Your task to perform on an android device: View the shopping cart on ebay.com. Search for "macbook air" on ebay.com, select the first entry, add it to the cart, then select checkout. Image 0: 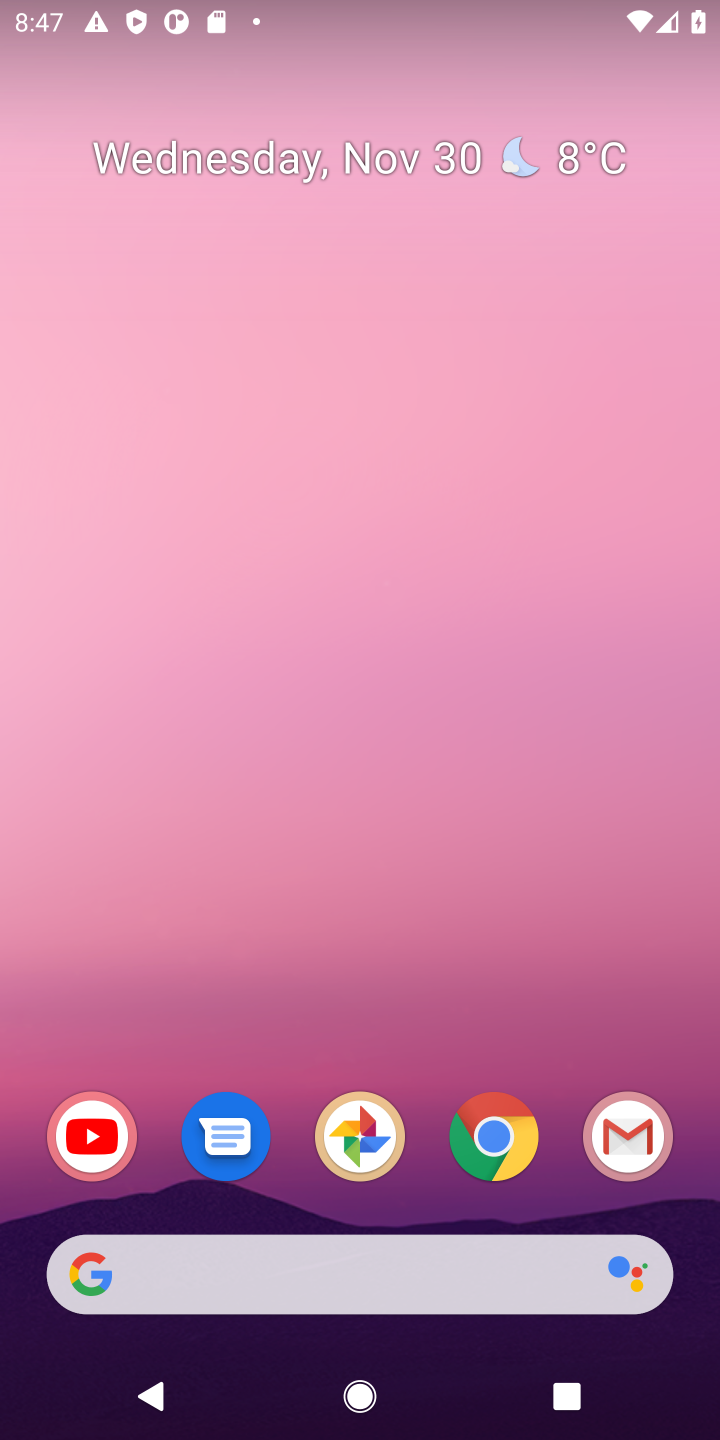
Step 0: click (493, 1075)
Your task to perform on an android device: View the shopping cart on ebay.com. Search for "macbook air" on ebay.com, select the first entry, add it to the cart, then select checkout. Image 1: 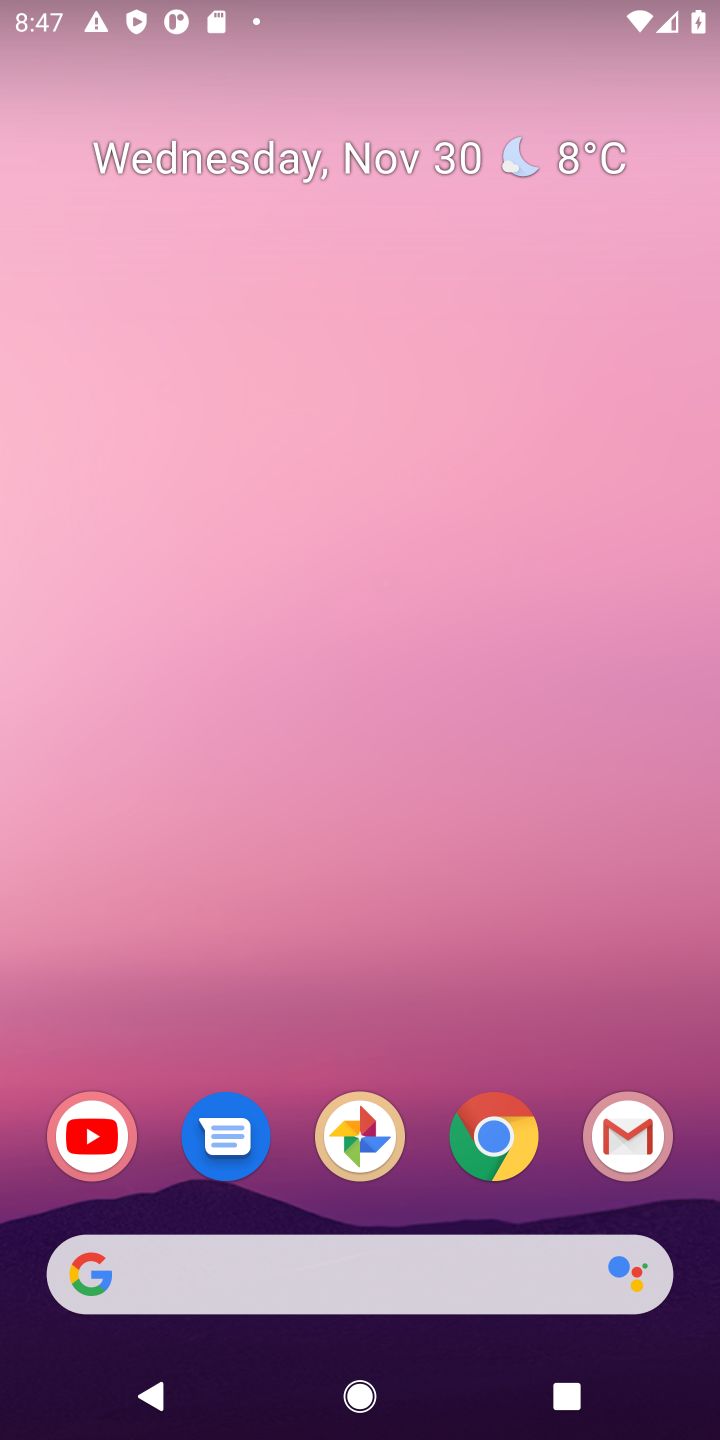
Step 1: click (503, 1130)
Your task to perform on an android device: View the shopping cart on ebay.com. Search for "macbook air" on ebay.com, select the first entry, add it to the cart, then select checkout. Image 2: 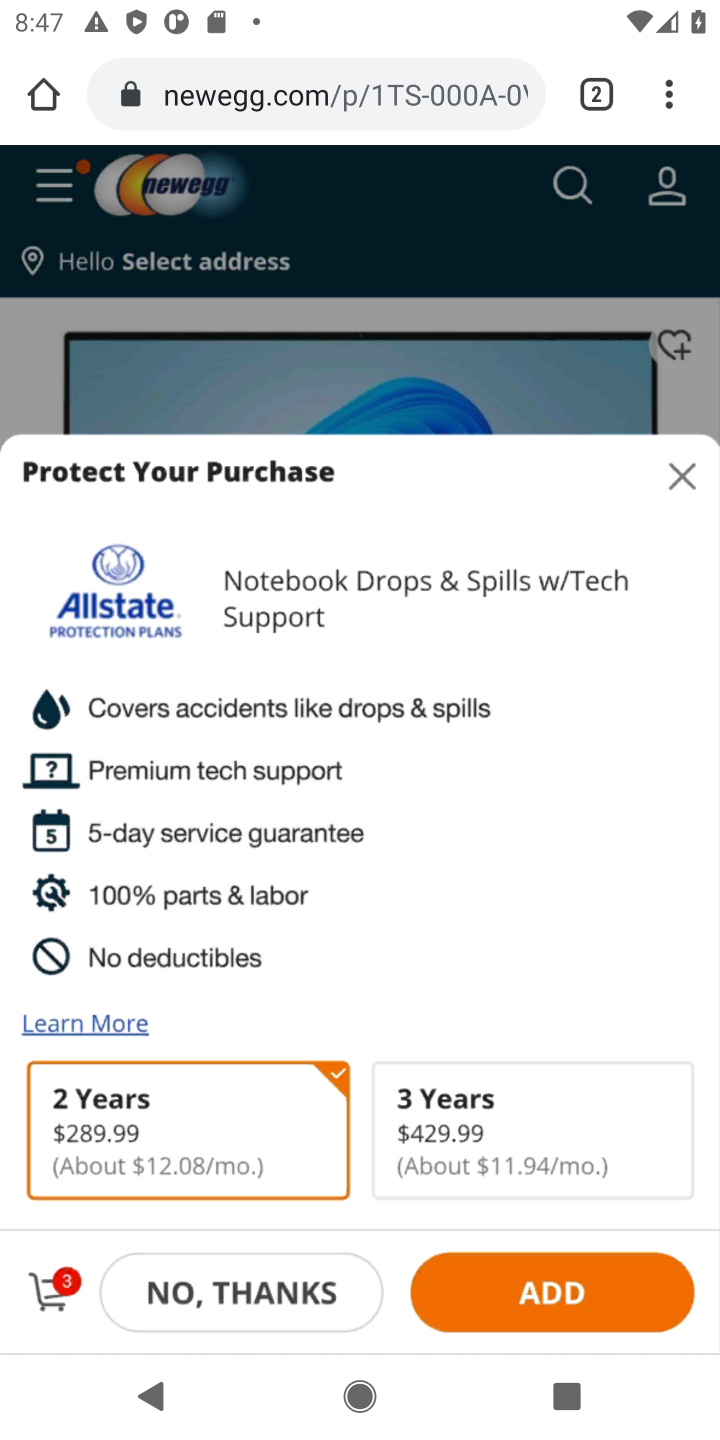
Step 2: click (293, 103)
Your task to perform on an android device: View the shopping cart on ebay.com. Search for "macbook air" on ebay.com, select the first entry, add it to the cart, then select checkout. Image 3: 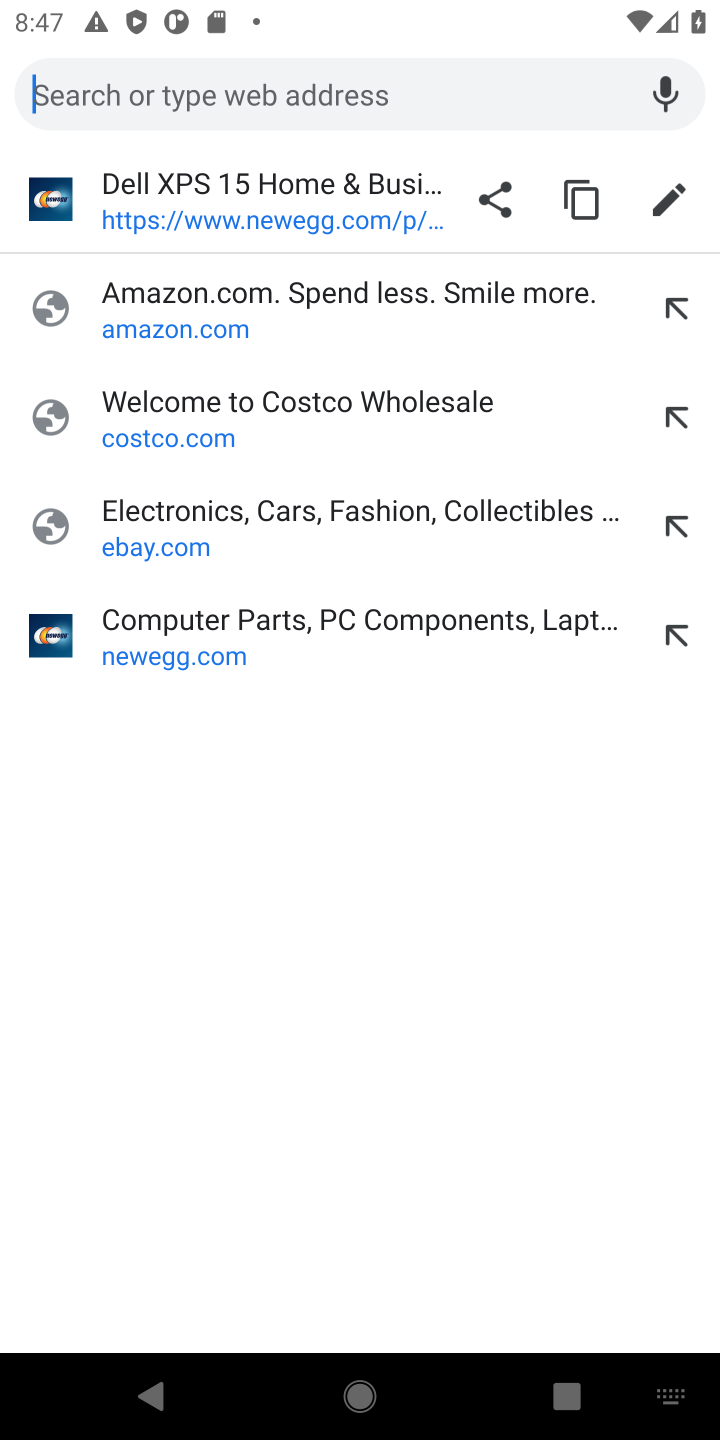
Step 3: click (131, 511)
Your task to perform on an android device: View the shopping cart on ebay.com. Search for "macbook air" on ebay.com, select the first entry, add it to the cart, then select checkout. Image 4: 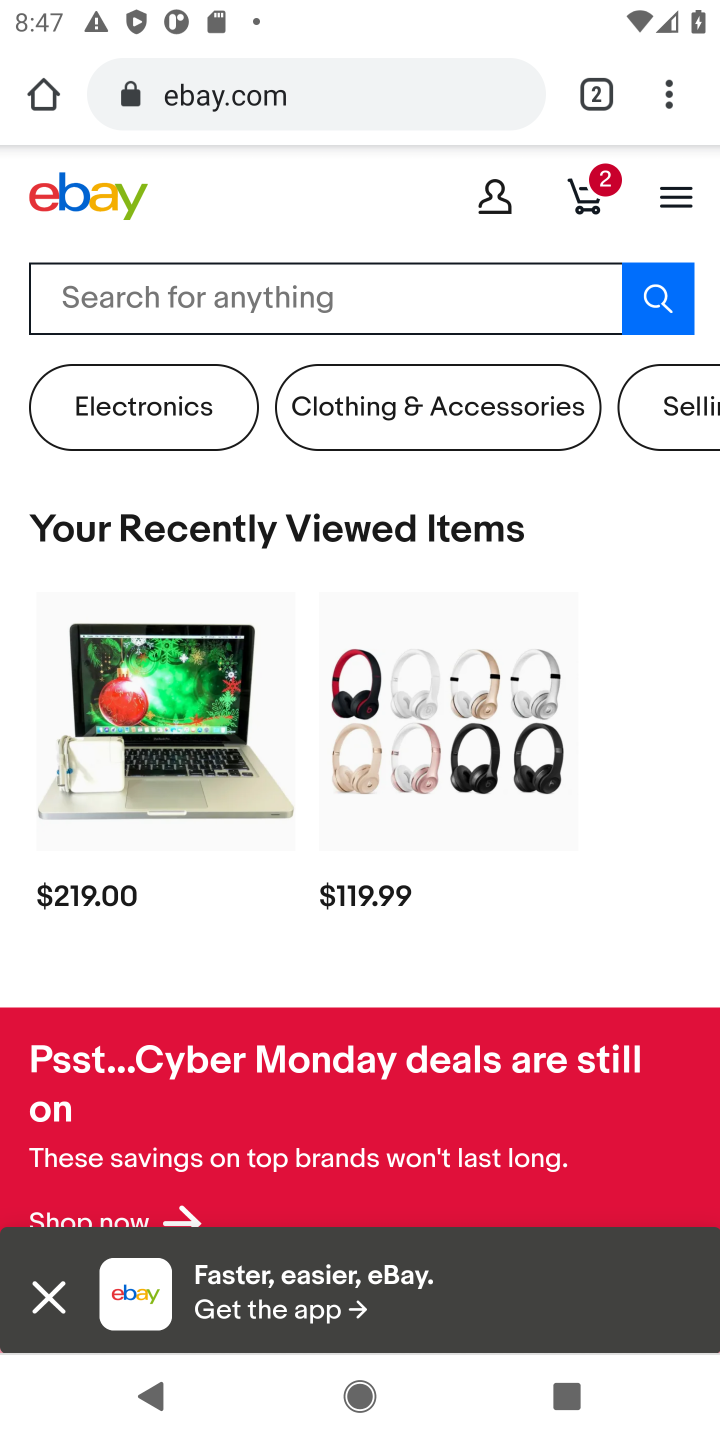
Step 4: click (589, 194)
Your task to perform on an android device: View the shopping cart on ebay.com. Search for "macbook air" on ebay.com, select the first entry, add it to the cart, then select checkout. Image 5: 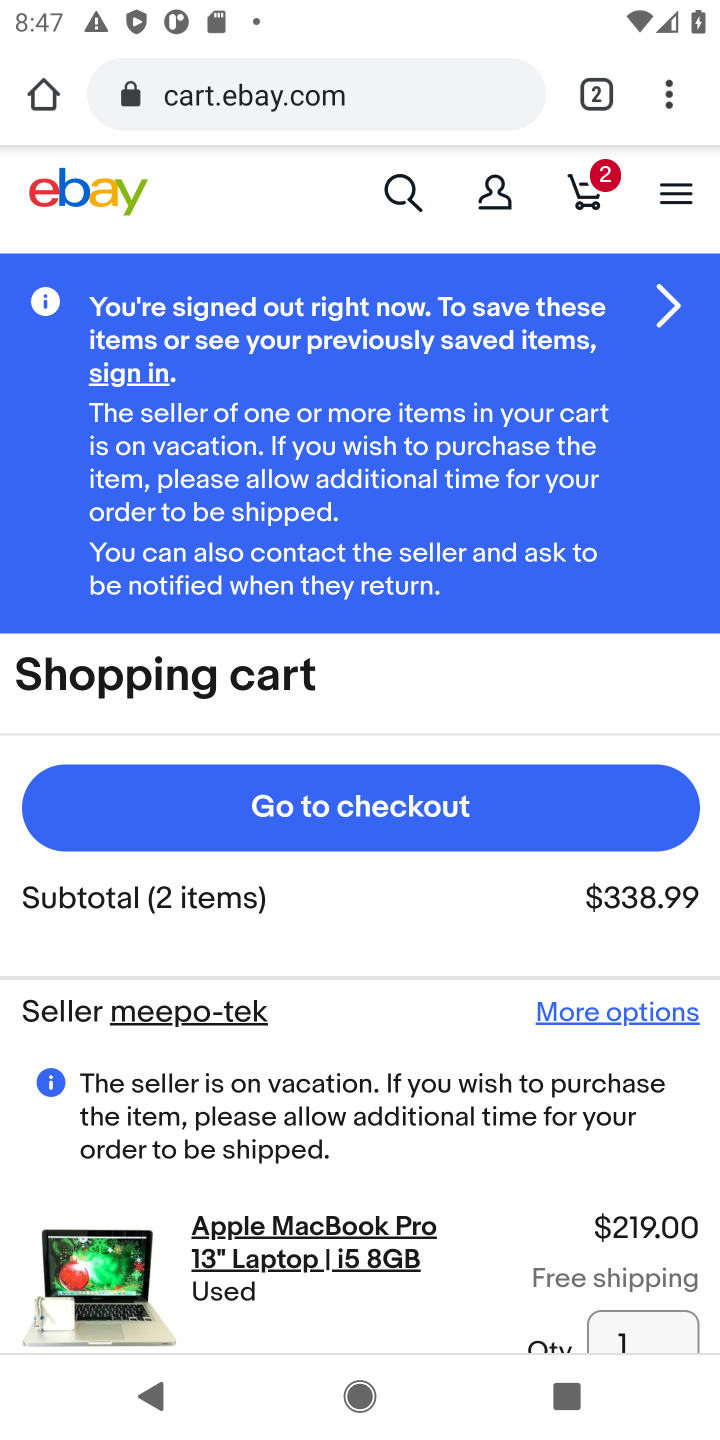
Step 5: click (395, 197)
Your task to perform on an android device: View the shopping cart on ebay.com. Search for "macbook air" on ebay.com, select the first entry, add it to the cart, then select checkout. Image 6: 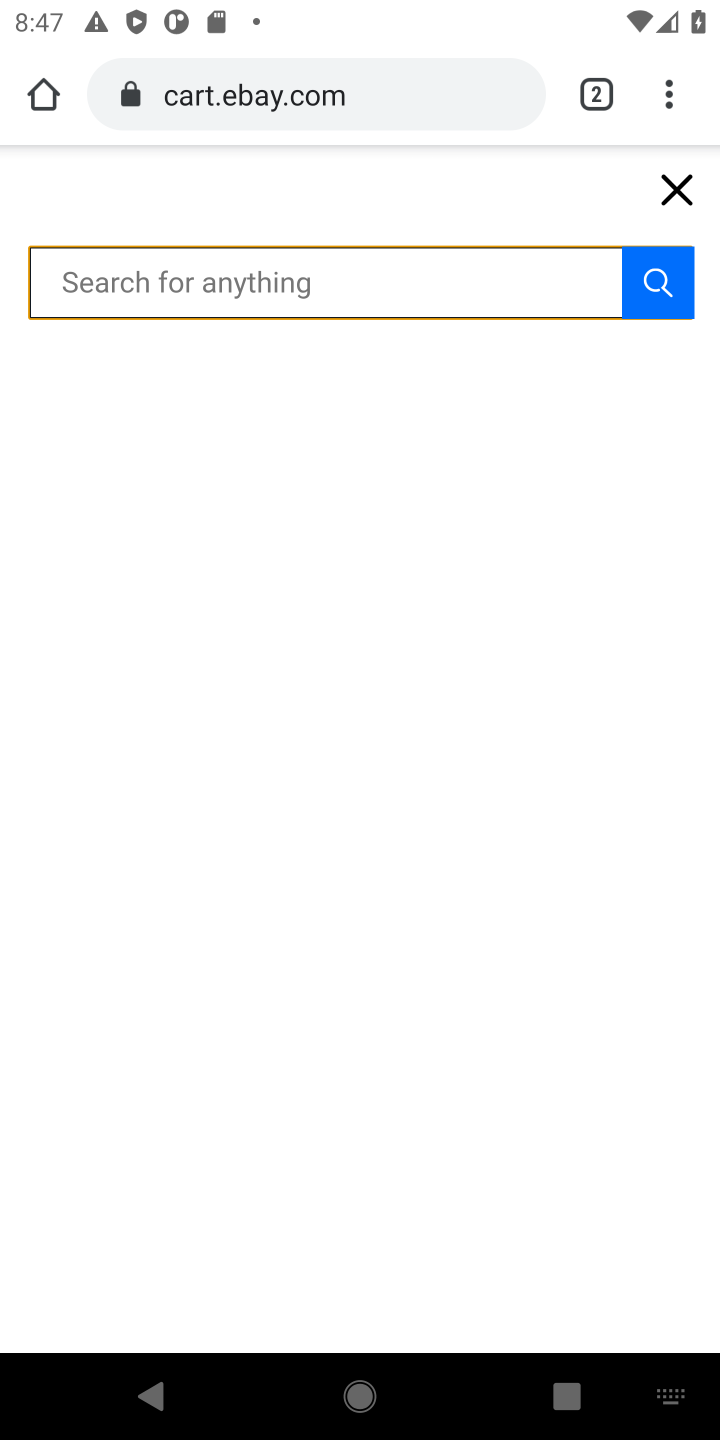
Step 6: type "macbook air"
Your task to perform on an android device: View the shopping cart on ebay.com. Search for "macbook air" on ebay.com, select the first entry, add it to the cart, then select checkout. Image 7: 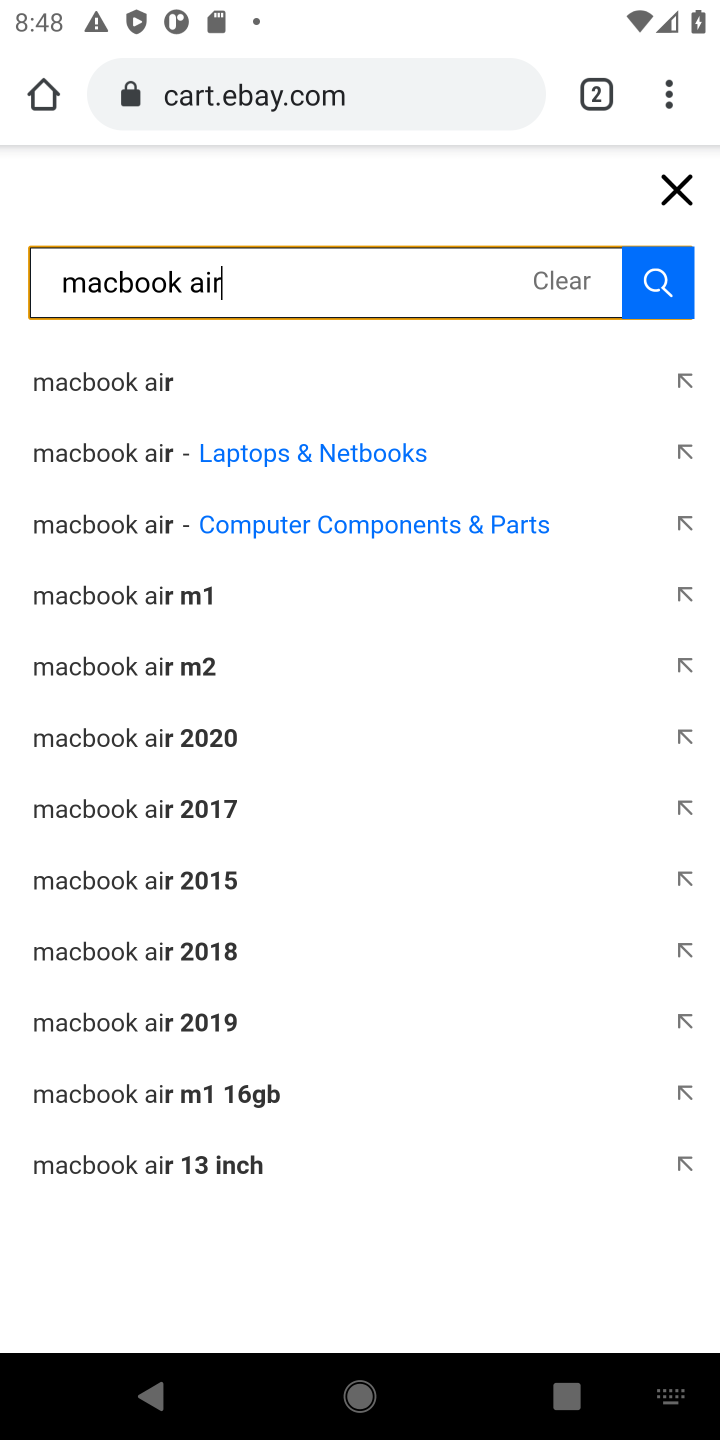
Step 7: click (85, 389)
Your task to perform on an android device: View the shopping cart on ebay.com. Search for "macbook air" on ebay.com, select the first entry, add it to the cart, then select checkout. Image 8: 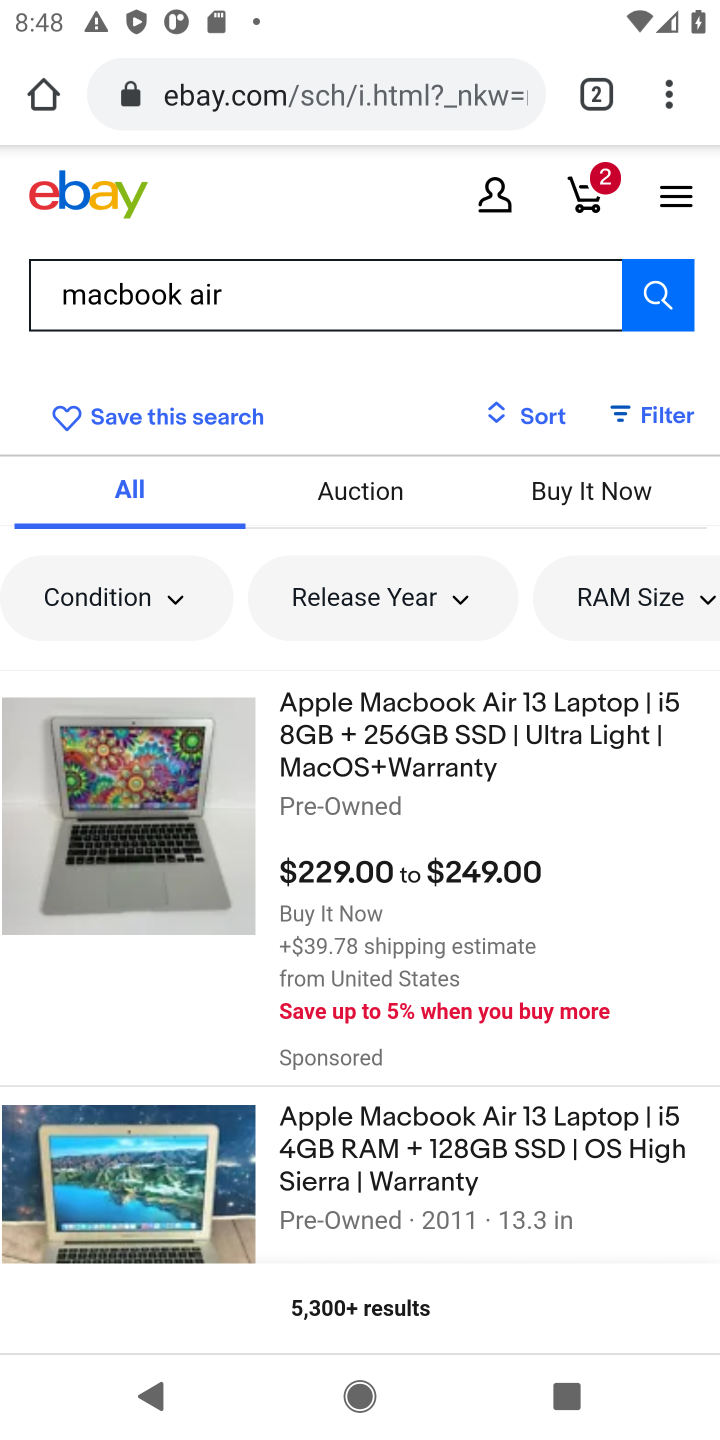
Step 8: click (391, 784)
Your task to perform on an android device: View the shopping cart on ebay.com. Search for "macbook air" on ebay.com, select the first entry, add it to the cart, then select checkout. Image 9: 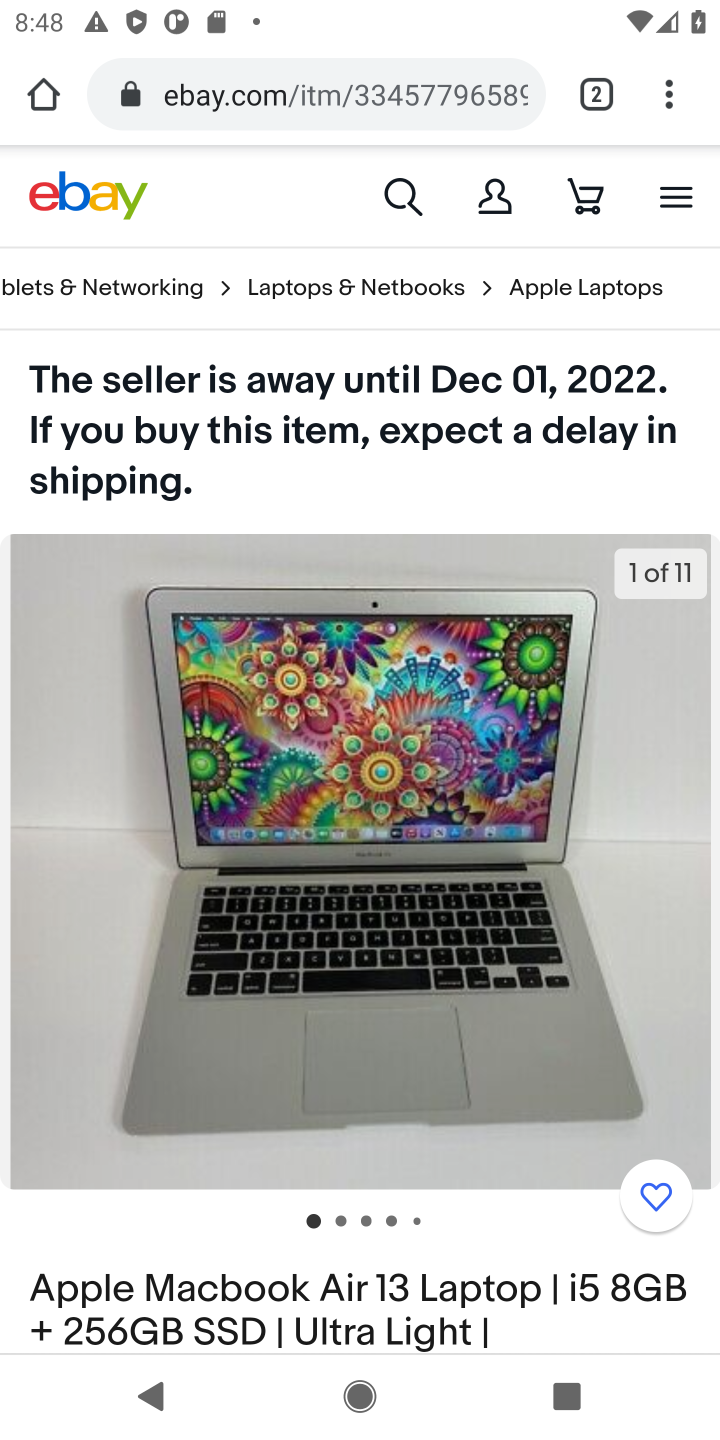
Step 9: drag from (552, 1259) to (475, 455)
Your task to perform on an android device: View the shopping cart on ebay.com. Search for "macbook air" on ebay.com, select the first entry, add it to the cart, then select checkout. Image 10: 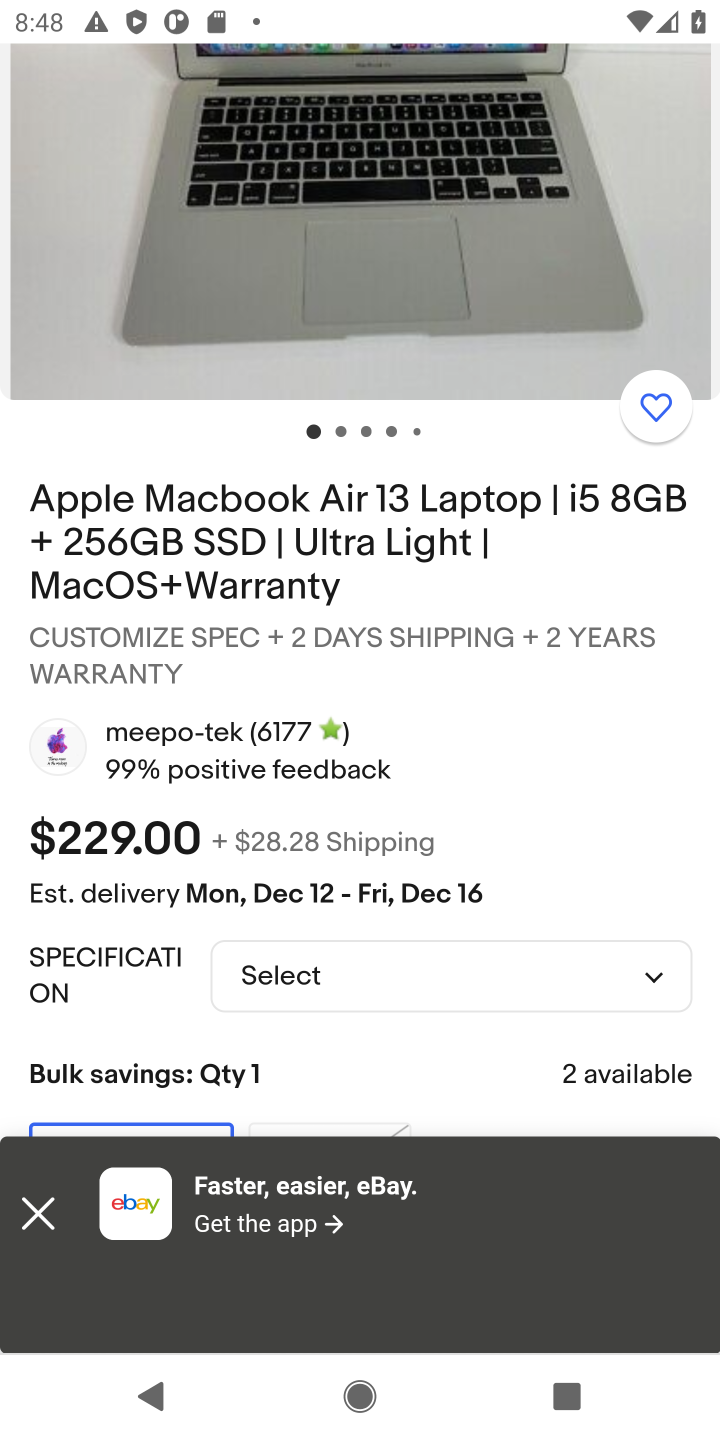
Step 10: drag from (394, 979) to (373, 461)
Your task to perform on an android device: View the shopping cart on ebay.com. Search for "macbook air" on ebay.com, select the first entry, add it to the cart, then select checkout. Image 11: 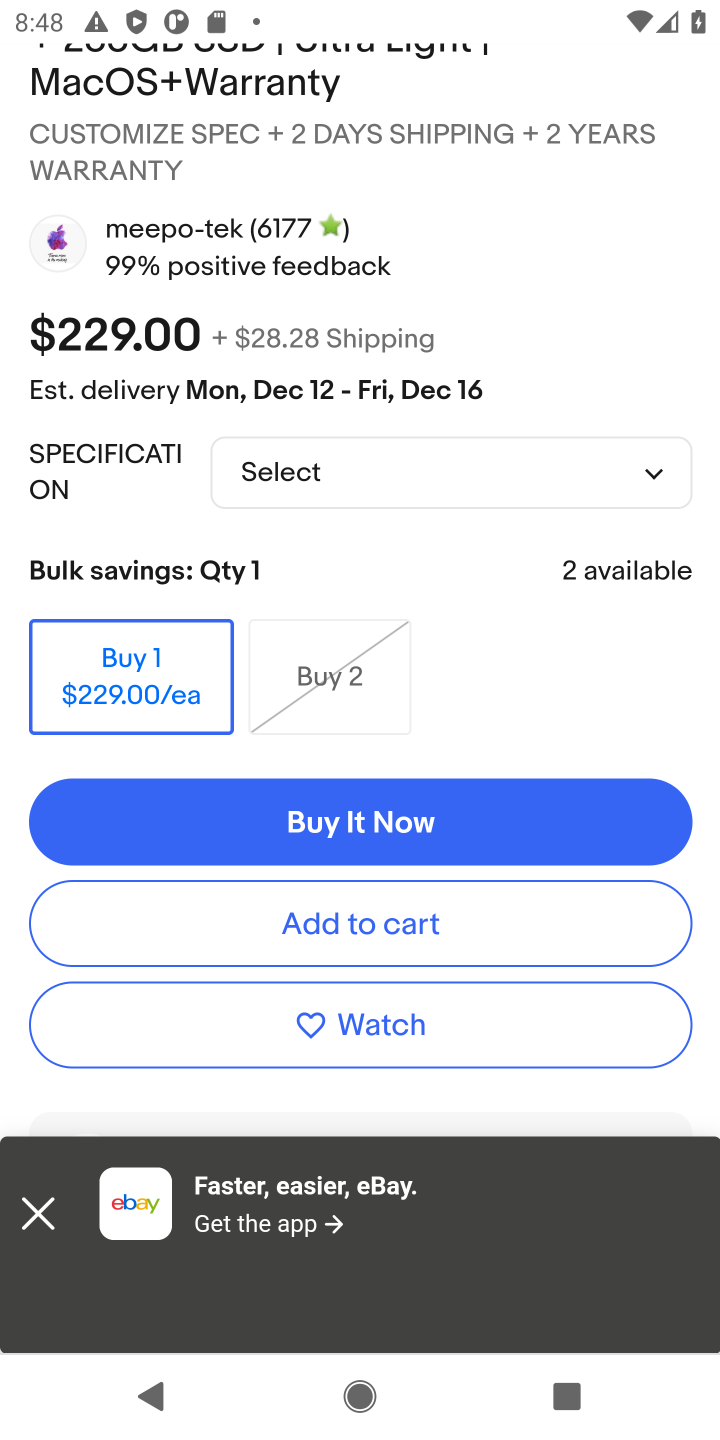
Step 11: click (306, 927)
Your task to perform on an android device: View the shopping cart on ebay.com. Search for "macbook air" on ebay.com, select the first entry, add it to the cart, then select checkout. Image 12: 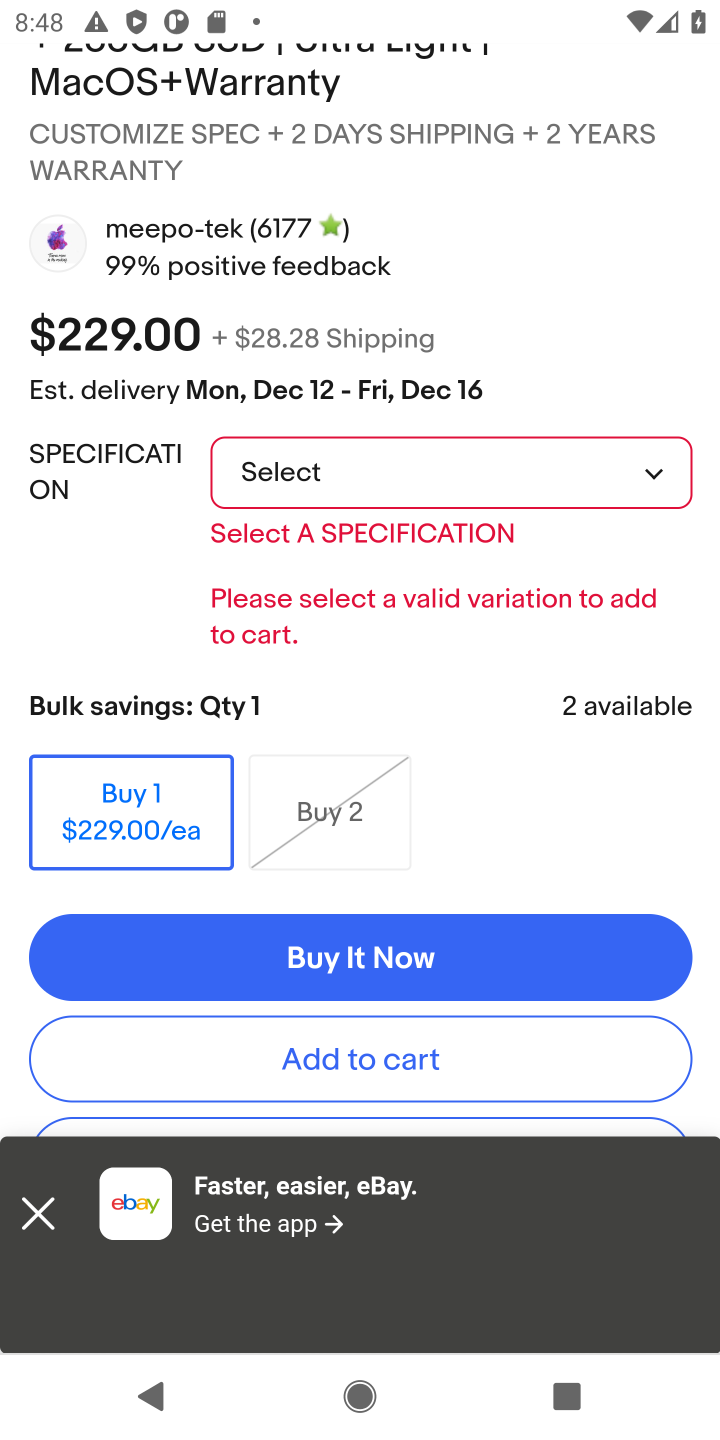
Step 12: click (665, 467)
Your task to perform on an android device: View the shopping cart on ebay.com. Search for "macbook air" on ebay.com, select the first entry, add it to the cart, then select checkout. Image 13: 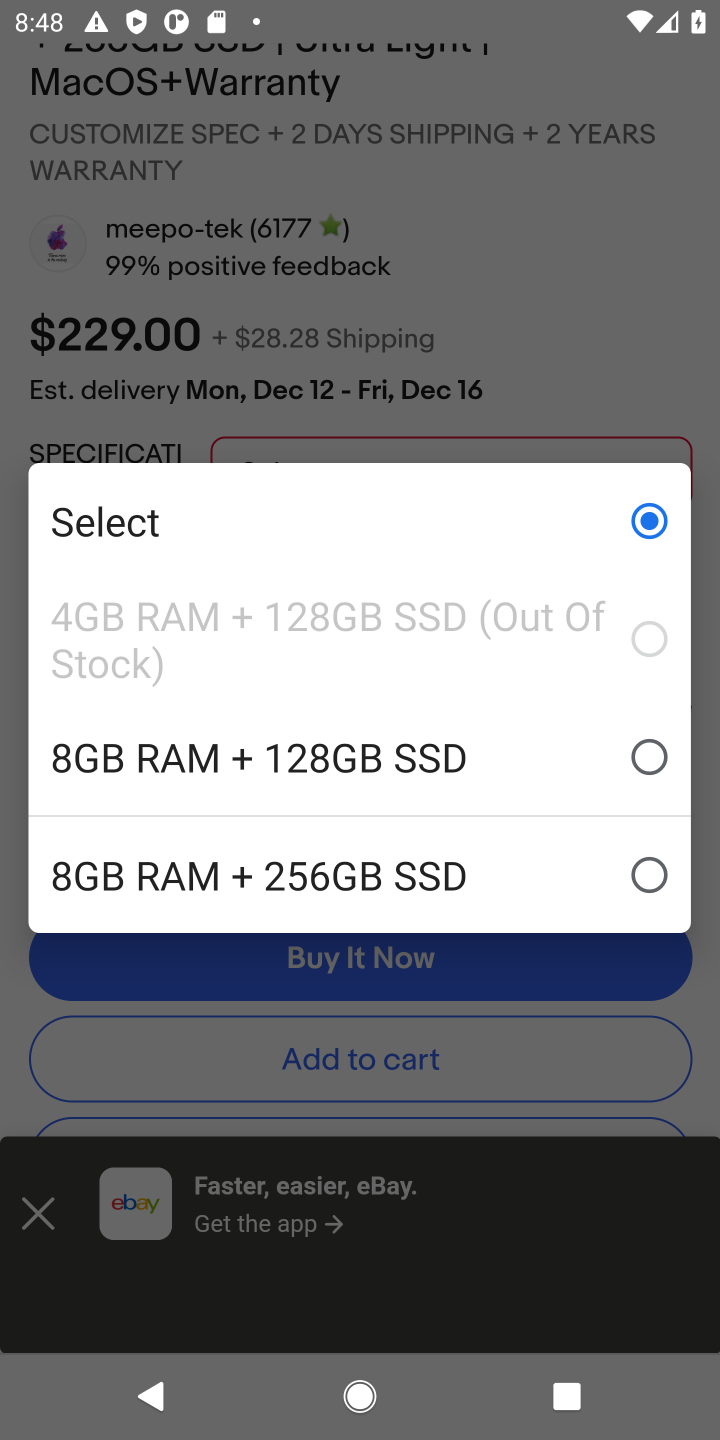
Step 13: click (222, 756)
Your task to perform on an android device: View the shopping cart on ebay.com. Search for "macbook air" on ebay.com, select the first entry, add it to the cart, then select checkout. Image 14: 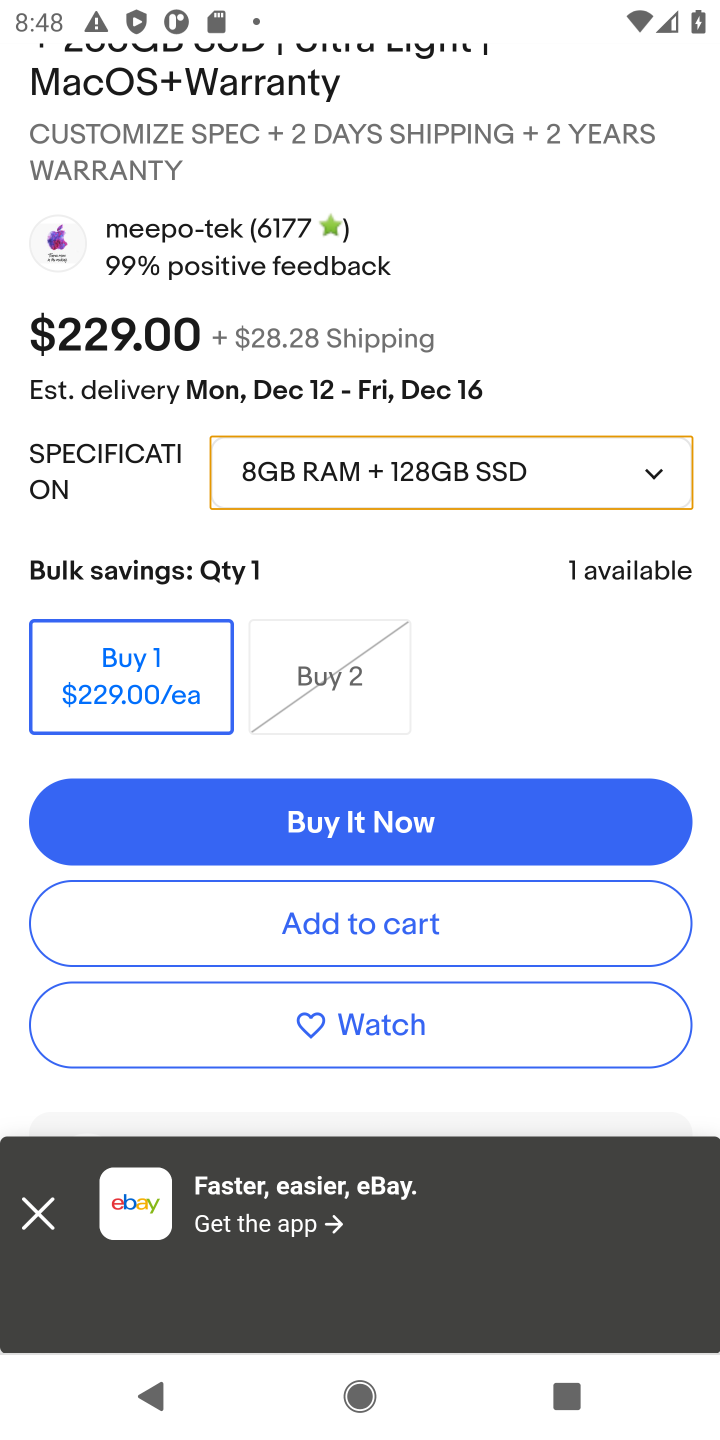
Step 14: click (374, 929)
Your task to perform on an android device: View the shopping cart on ebay.com. Search for "macbook air" on ebay.com, select the first entry, add it to the cart, then select checkout. Image 15: 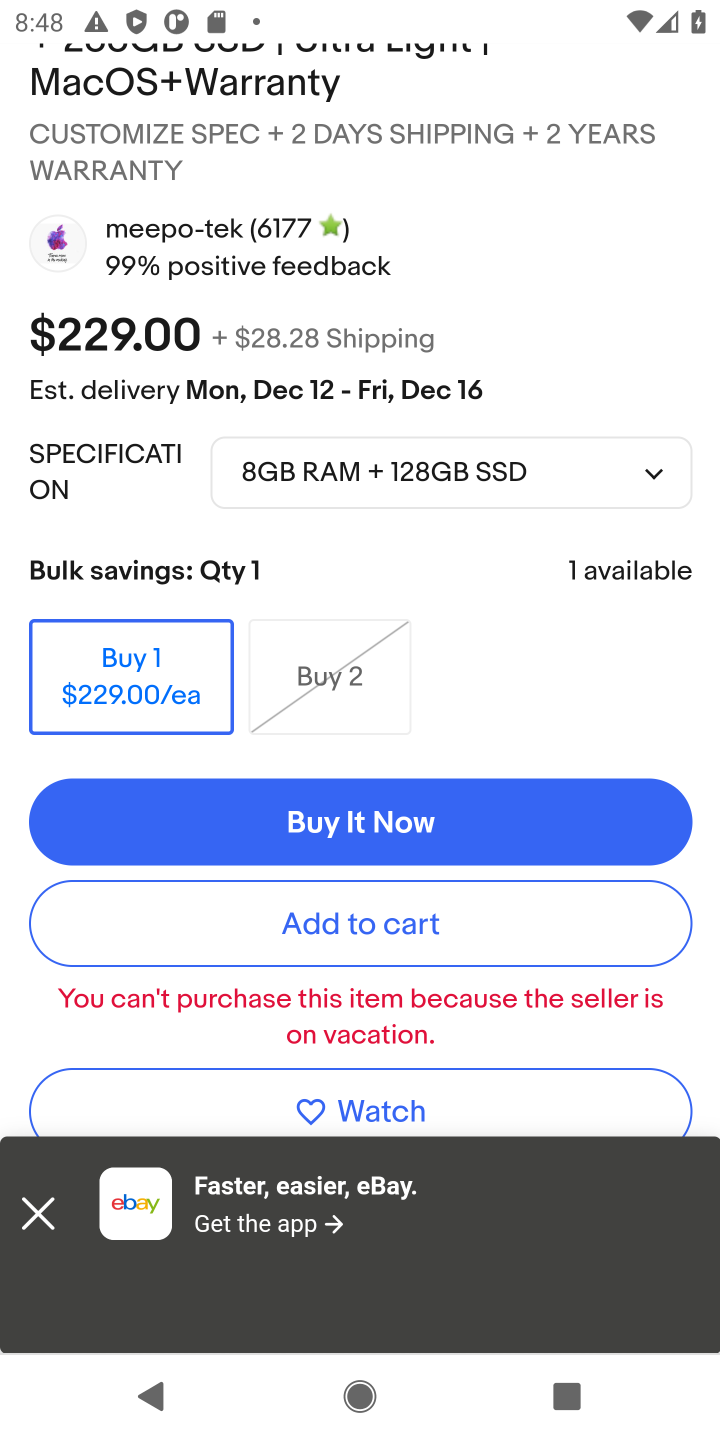
Step 15: task complete